Your task to perform on an android device: all mails in gmail Image 0: 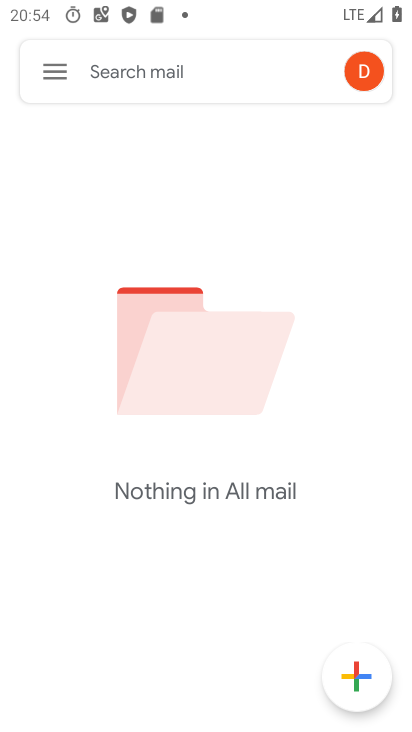
Step 0: task complete